Your task to perform on an android device: Go to Yahoo.com Image 0: 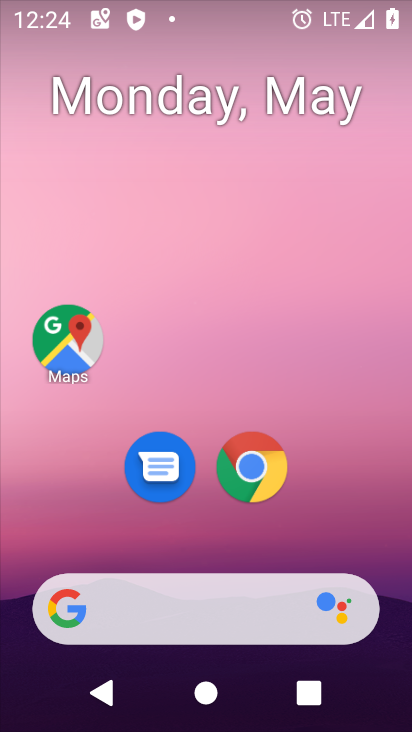
Step 0: click (255, 479)
Your task to perform on an android device: Go to Yahoo.com Image 1: 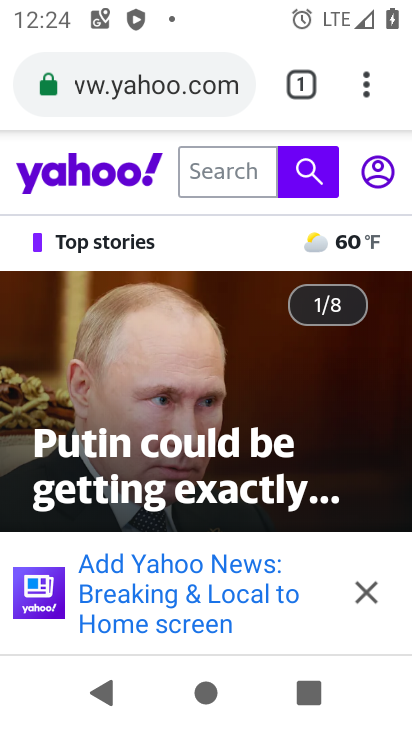
Step 1: task complete